Your task to perform on an android device: See recent photos Image 0: 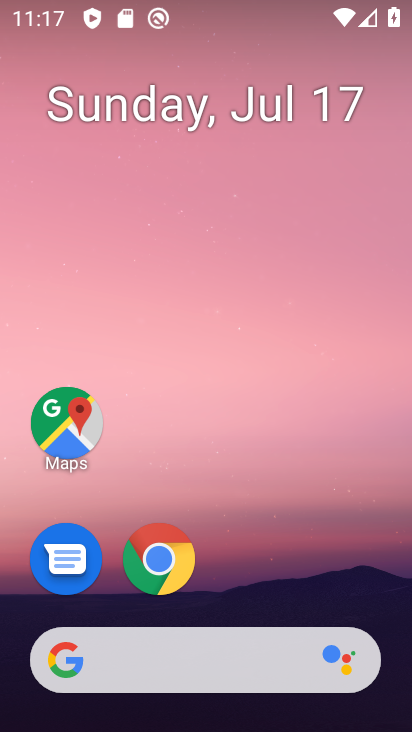
Step 0: drag from (258, 567) to (259, 19)
Your task to perform on an android device: See recent photos Image 1: 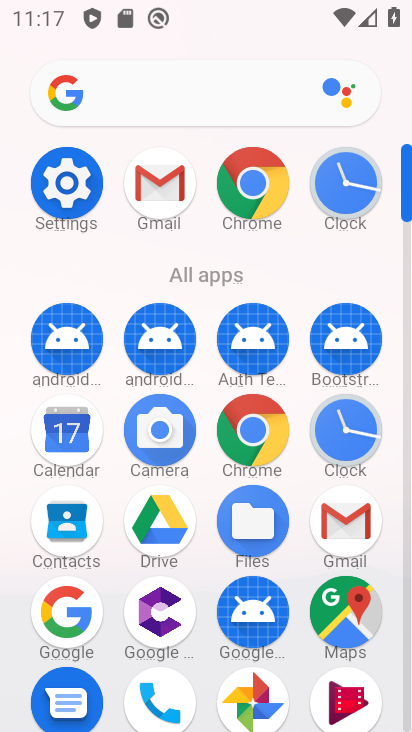
Step 1: click (252, 697)
Your task to perform on an android device: See recent photos Image 2: 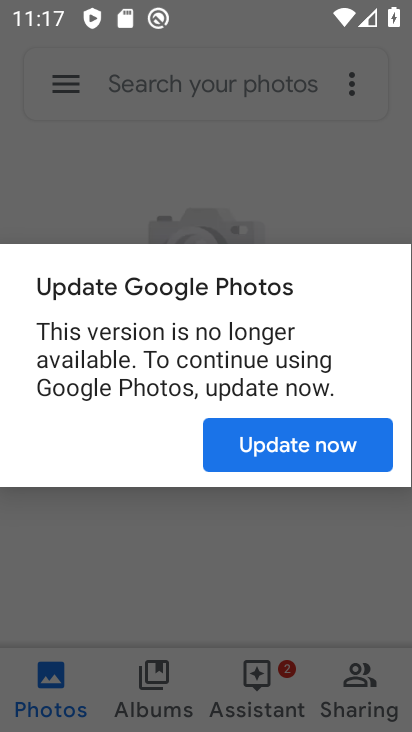
Step 2: click (265, 450)
Your task to perform on an android device: See recent photos Image 3: 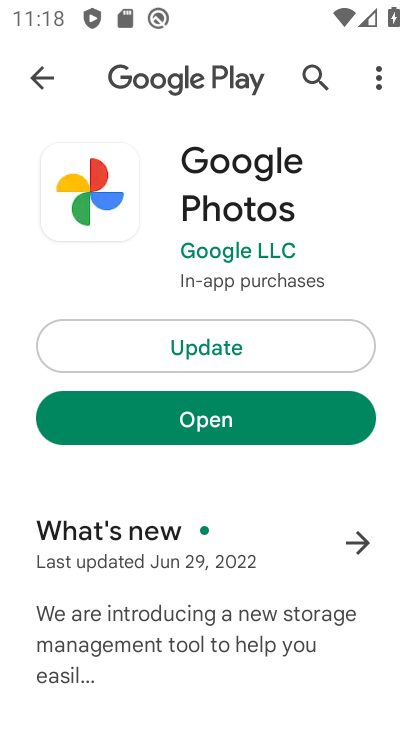
Step 3: click (195, 421)
Your task to perform on an android device: See recent photos Image 4: 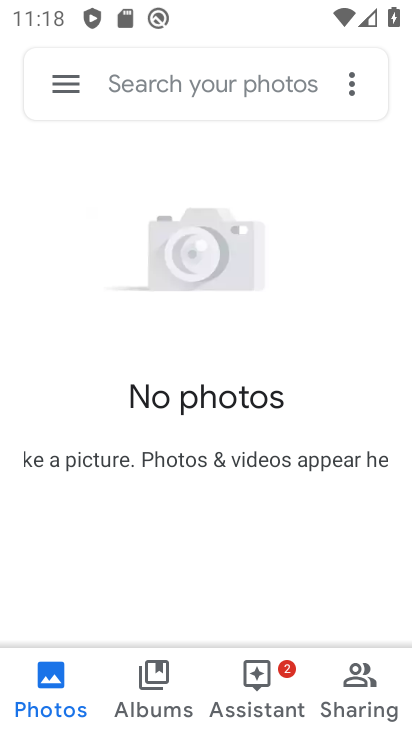
Step 4: click (33, 690)
Your task to perform on an android device: See recent photos Image 5: 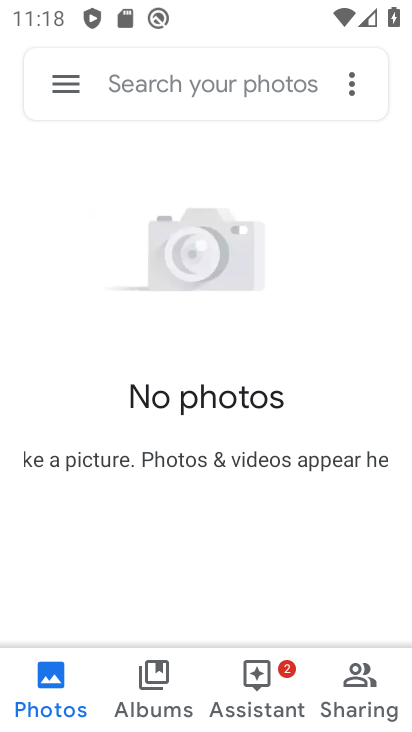
Step 5: task complete